Your task to perform on an android device: change the clock display to digital Image 0: 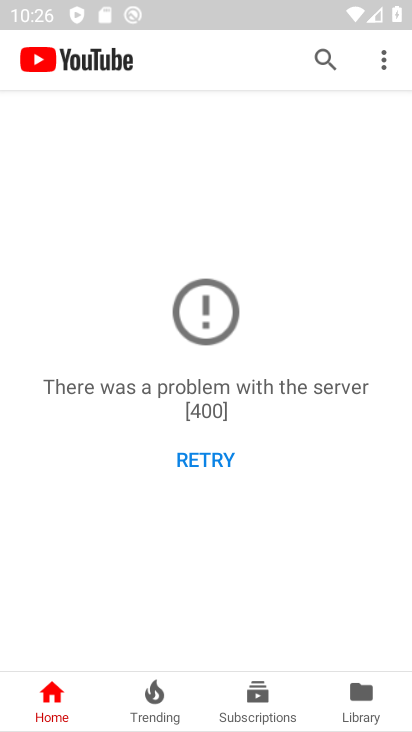
Step 0: press home button
Your task to perform on an android device: change the clock display to digital Image 1: 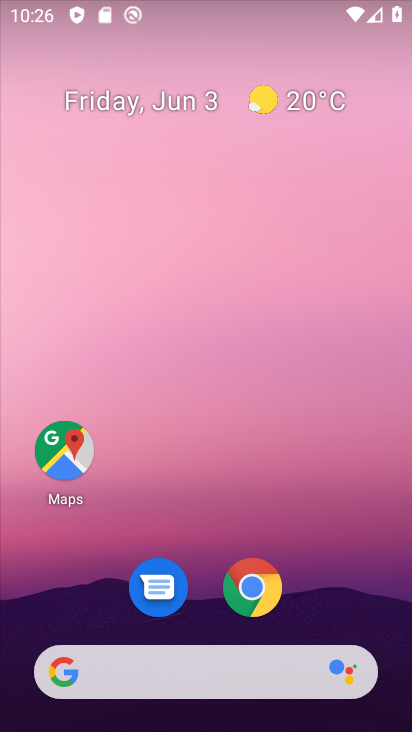
Step 1: drag from (323, 413) to (267, 48)
Your task to perform on an android device: change the clock display to digital Image 2: 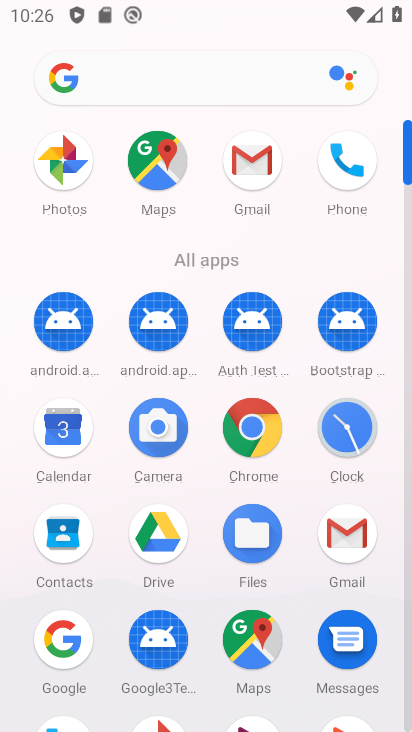
Step 2: click (341, 428)
Your task to perform on an android device: change the clock display to digital Image 3: 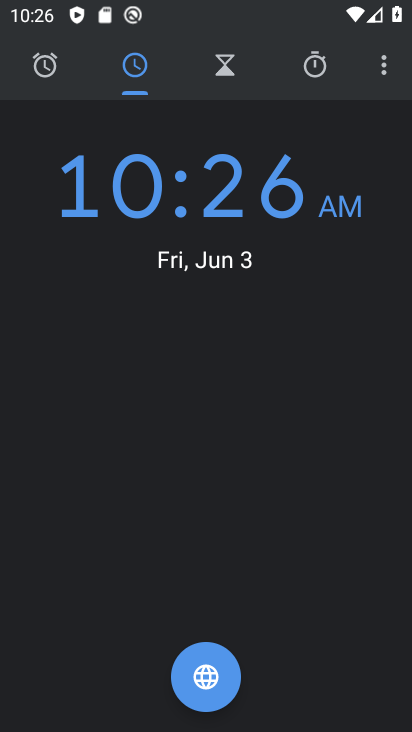
Step 3: click (382, 60)
Your task to perform on an android device: change the clock display to digital Image 4: 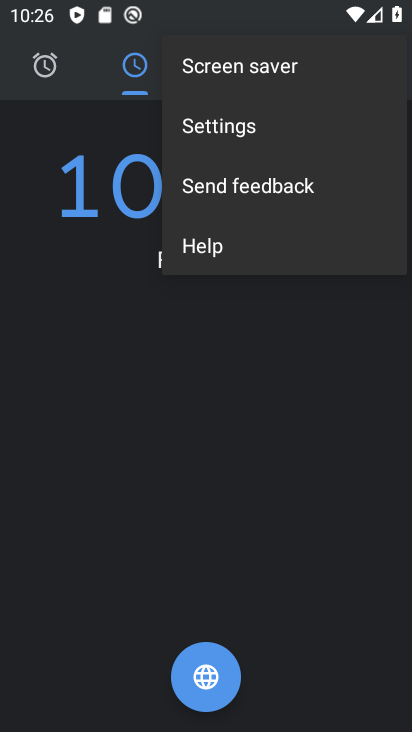
Step 4: click (245, 126)
Your task to perform on an android device: change the clock display to digital Image 5: 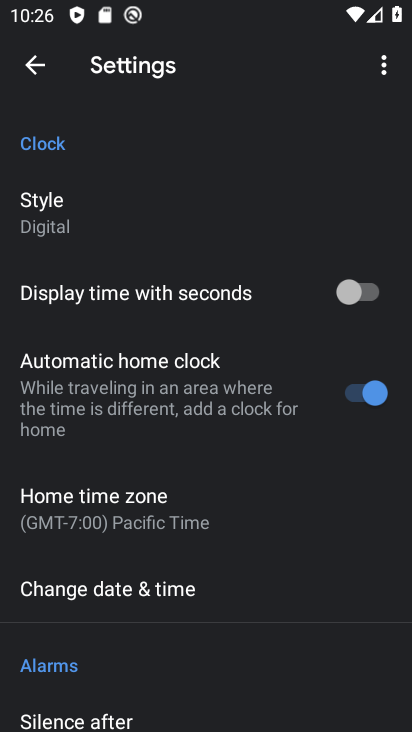
Step 5: click (170, 209)
Your task to perform on an android device: change the clock display to digital Image 6: 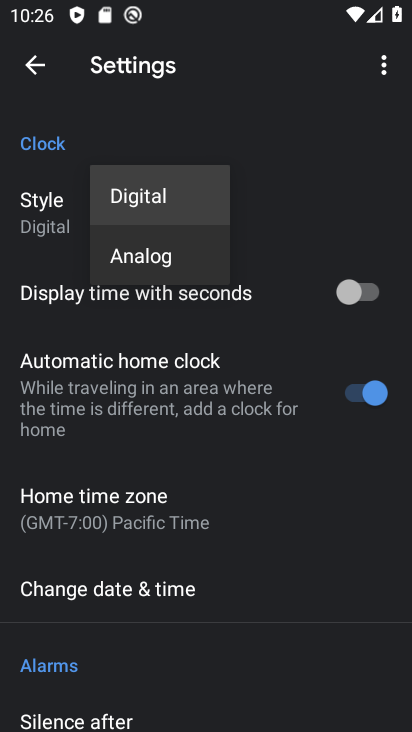
Step 6: click (174, 209)
Your task to perform on an android device: change the clock display to digital Image 7: 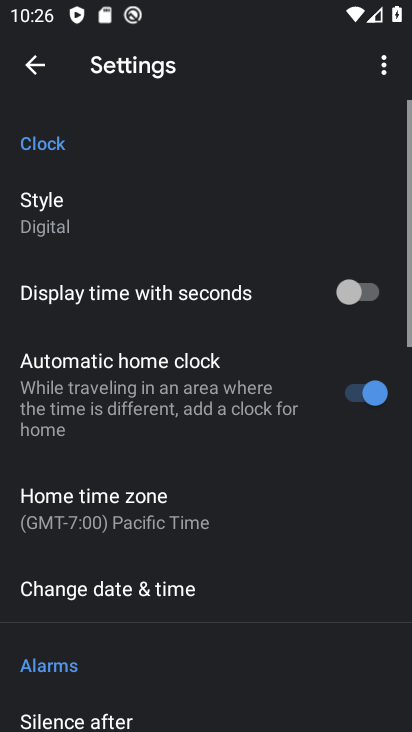
Step 7: task complete